Your task to perform on an android device: Open display settings Image 0: 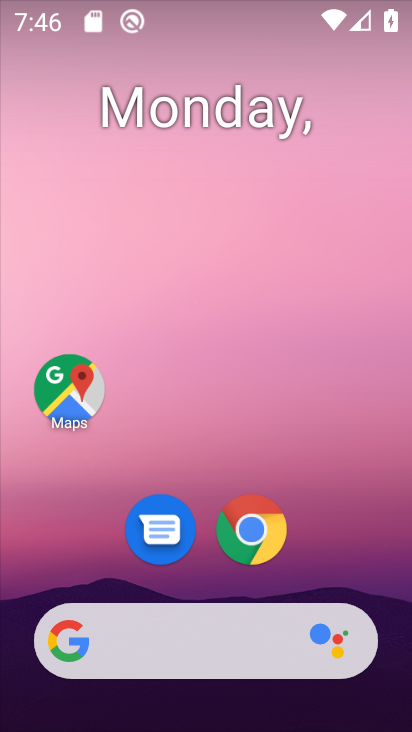
Step 0: drag from (193, 609) to (190, 46)
Your task to perform on an android device: Open display settings Image 1: 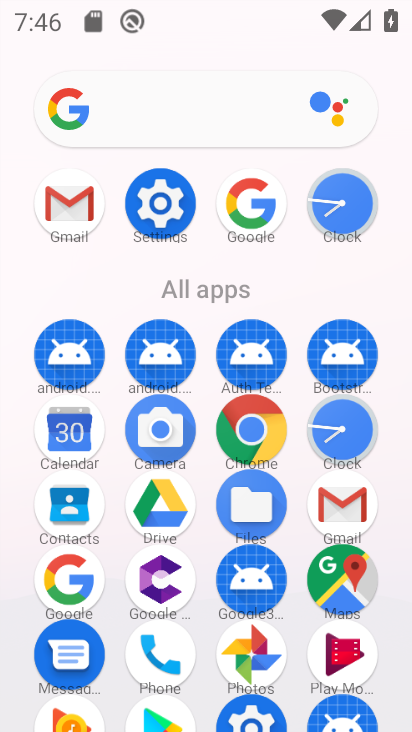
Step 1: click (154, 207)
Your task to perform on an android device: Open display settings Image 2: 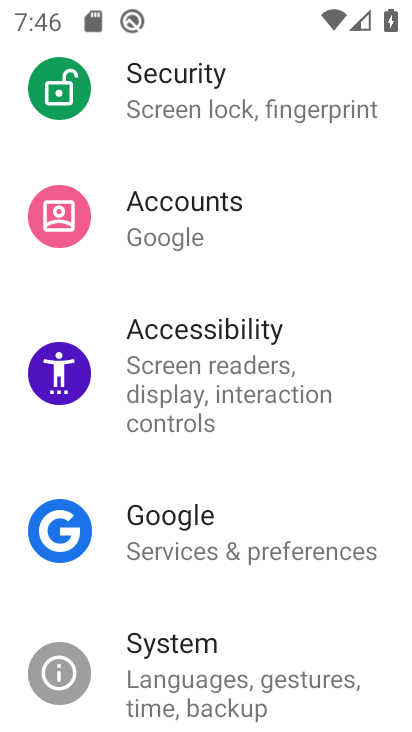
Step 2: drag from (187, 100) to (197, 514)
Your task to perform on an android device: Open display settings Image 3: 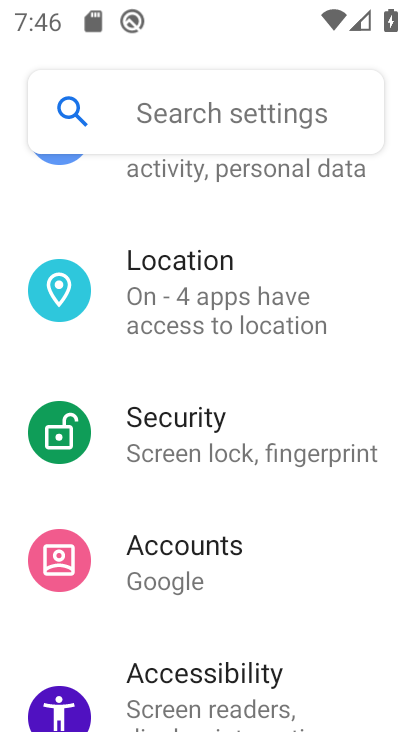
Step 3: drag from (179, 108) to (208, 512)
Your task to perform on an android device: Open display settings Image 4: 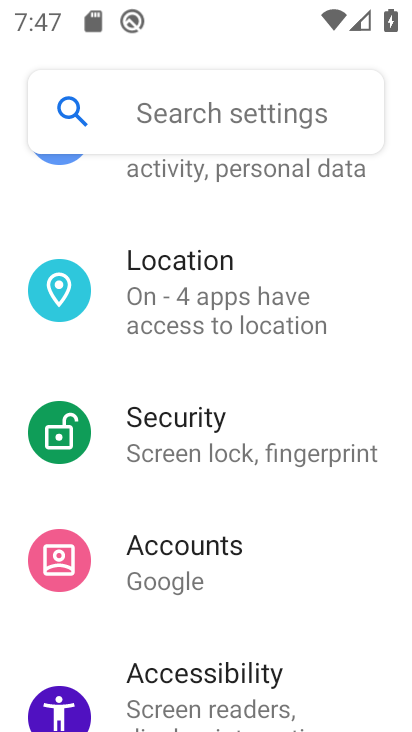
Step 4: drag from (301, 216) to (214, 727)
Your task to perform on an android device: Open display settings Image 5: 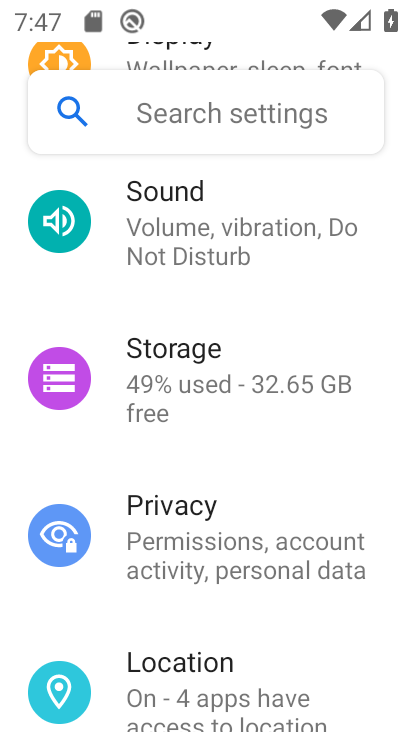
Step 5: drag from (259, 215) to (227, 642)
Your task to perform on an android device: Open display settings Image 6: 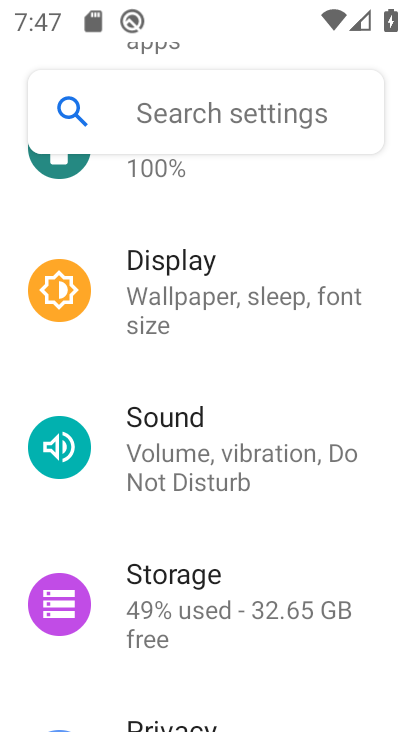
Step 6: click (174, 276)
Your task to perform on an android device: Open display settings Image 7: 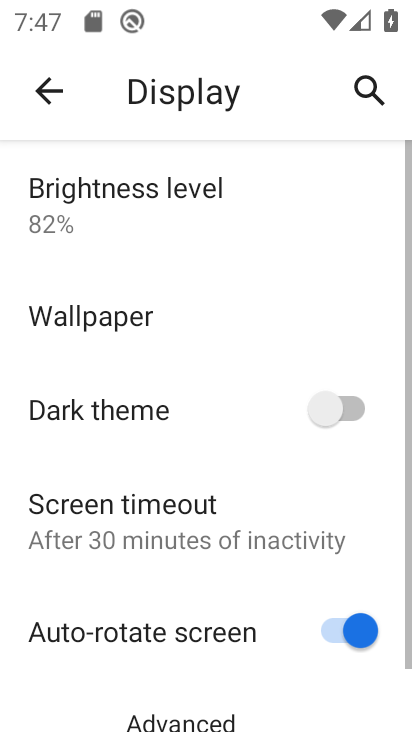
Step 7: drag from (208, 677) to (246, 203)
Your task to perform on an android device: Open display settings Image 8: 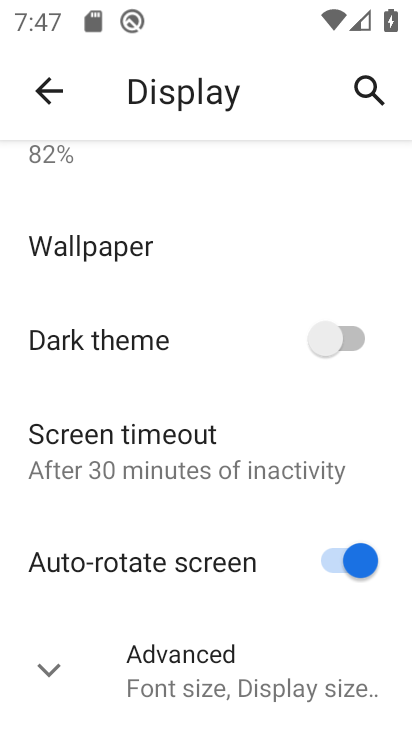
Step 8: click (187, 672)
Your task to perform on an android device: Open display settings Image 9: 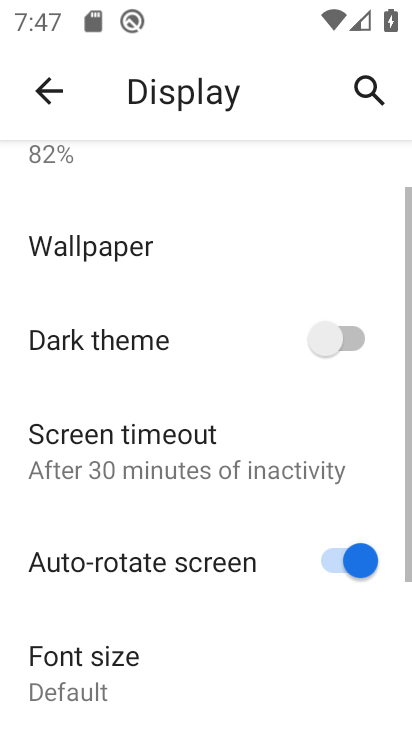
Step 9: task complete